Your task to perform on an android device: change notification settings in the gmail app Image 0: 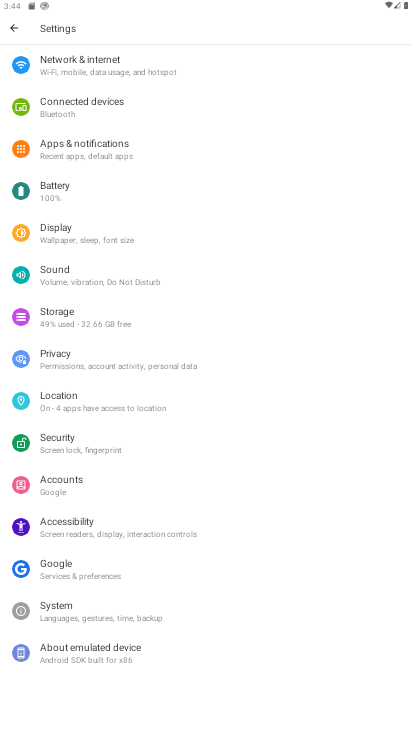
Step 0: press home button
Your task to perform on an android device: change notification settings in the gmail app Image 1: 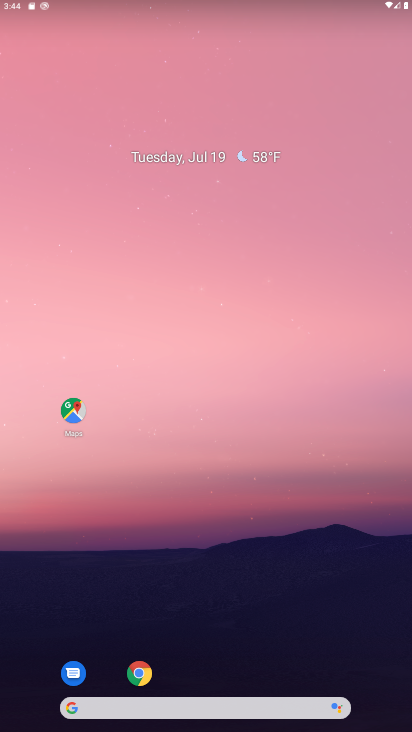
Step 1: drag from (255, 689) to (180, 73)
Your task to perform on an android device: change notification settings in the gmail app Image 2: 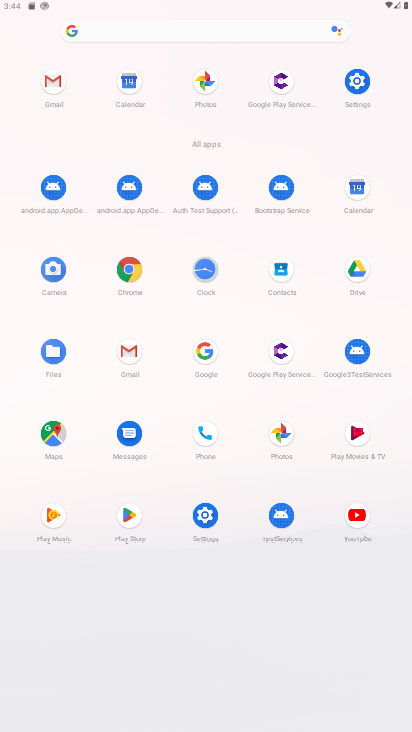
Step 2: click (135, 342)
Your task to perform on an android device: change notification settings in the gmail app Image 3: 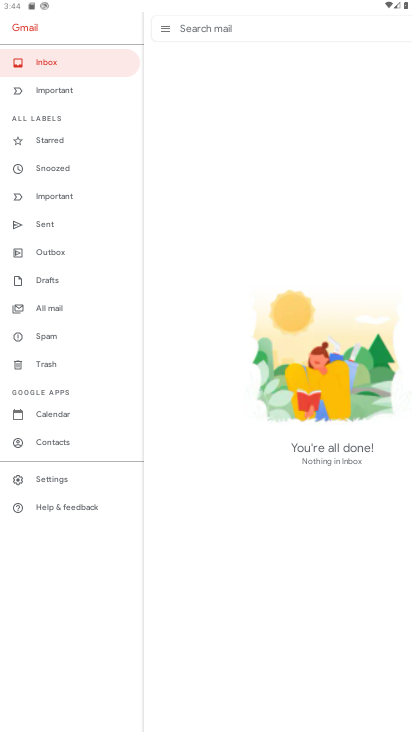
Step 3: click (74, 476)
Your task to perform on an android device: change notification settings in the gmail app Image 4: 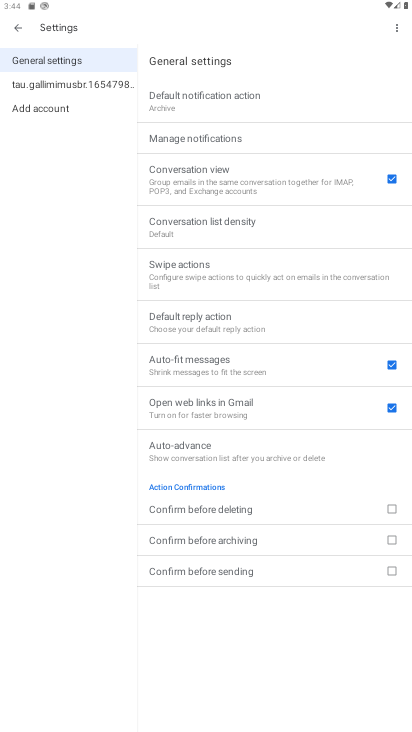
Step 4: click (71, 81)
Your task to perform on an android device: change notification settings in the gmail app Image 5: 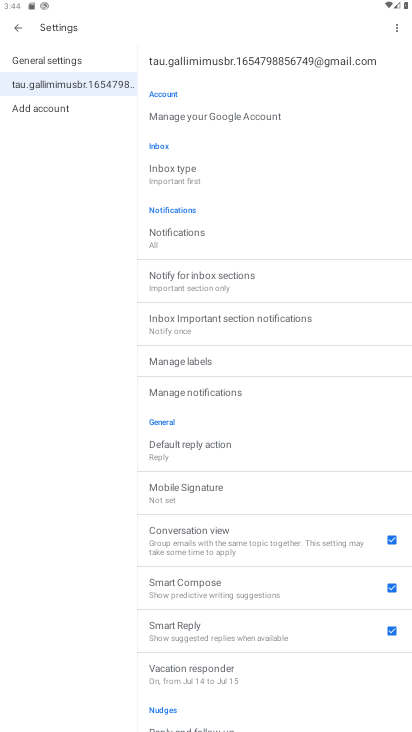
Step 5: click (190, 395)
Your task to perform on an android device: change notification settings in the gmail app Image 6: 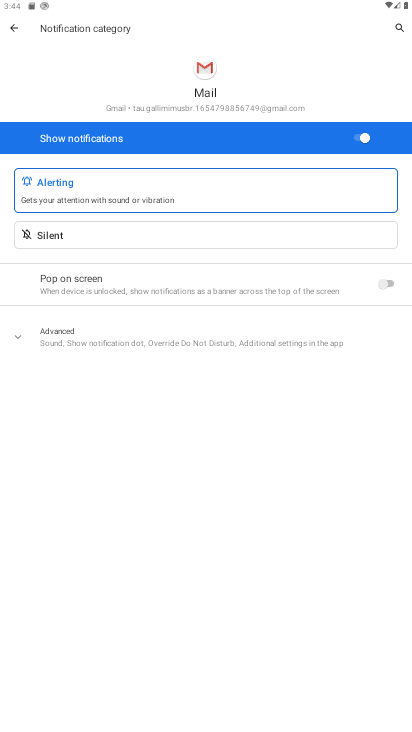
Step 6: click (362, 140)
Your task to perform on an android device: change notification settings in the gmail app Image 7: 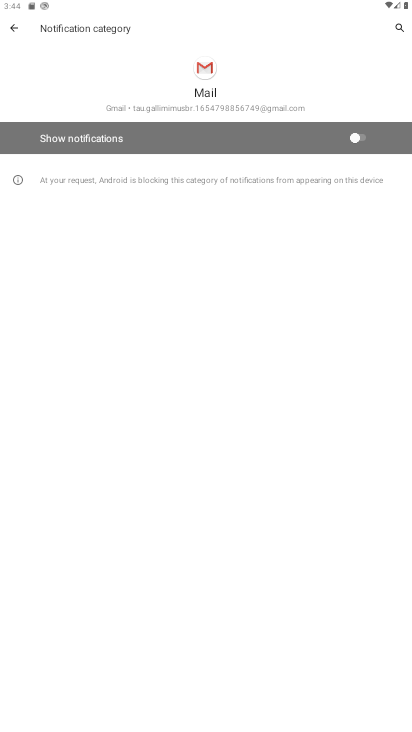
Step 7: task complete